Your task to perform on an android device: check storage Image 0: 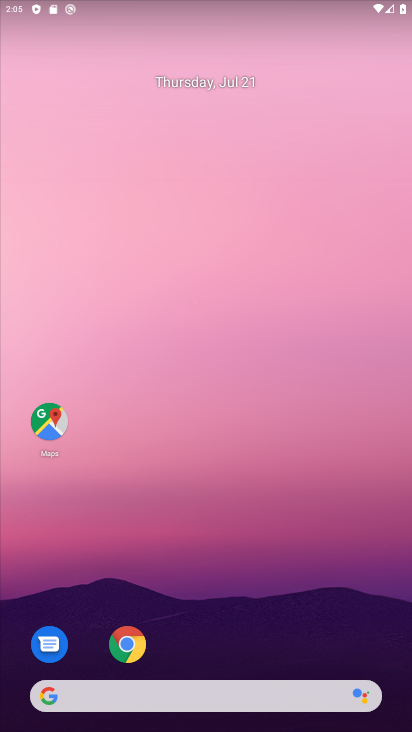
Step 0: drag from (280, 645) to (209, 149)
Your task to perform on an android device: check storage Image 1: 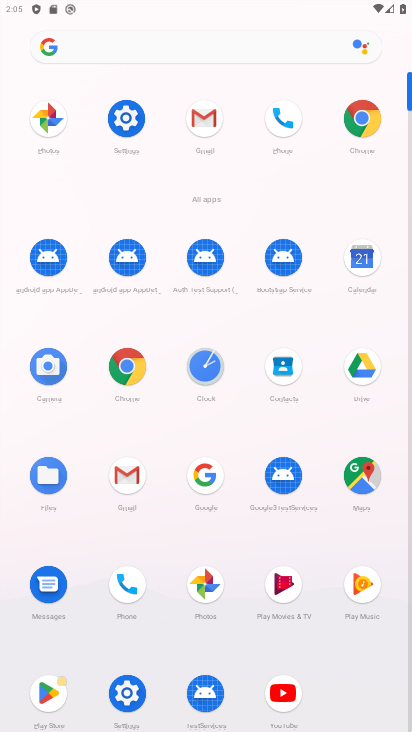
Step 1: click (119, 115)
Your task to perform on an android device: check storage Image 2: 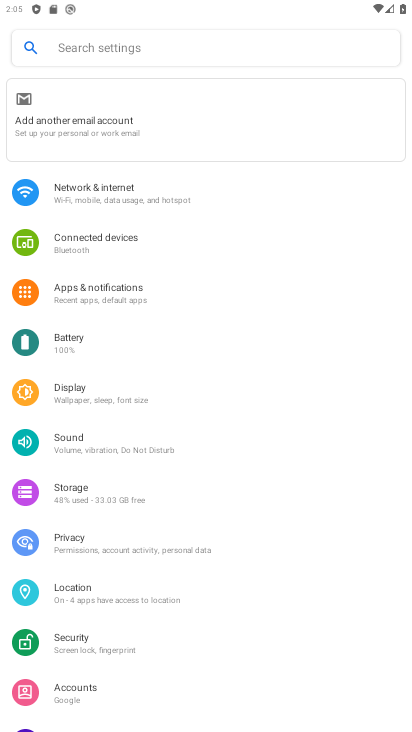
Step 2: click (87, 494)
Your task to perform on an android device: check storage Image 3: 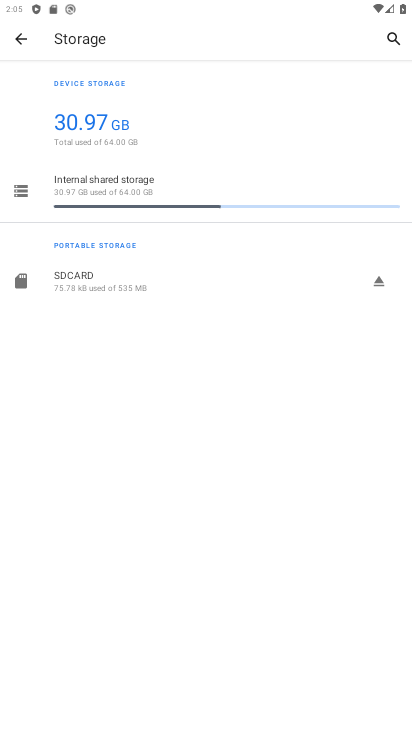
Step 3: task complete